Your task to perform on an android device: toggle priority inbox in the gmail app Image 0: 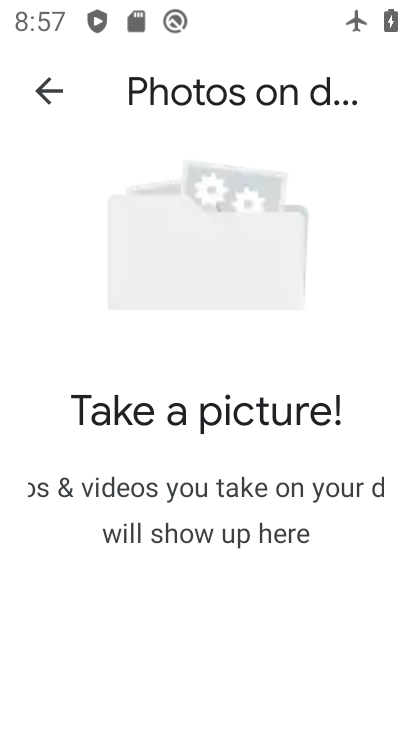
Step 0: press home button
Your task to perform on an android device: toggle priority inbox in the gmail app Image 1: 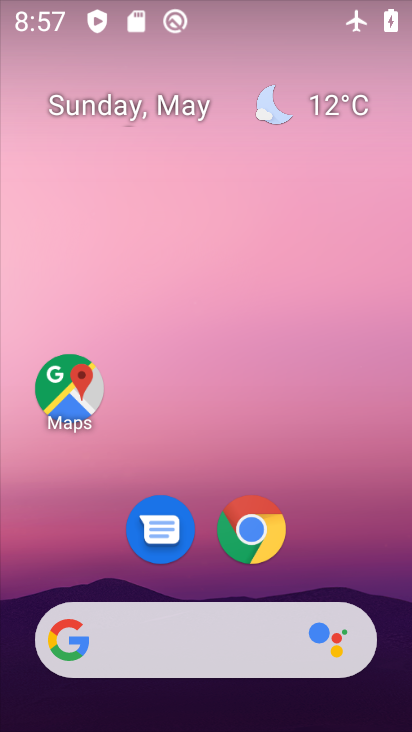
Step 1: drag from (321, 587) to (306, 19)
Your task to perform on an android device: toggle priority inbox in the gmail app Image 2: 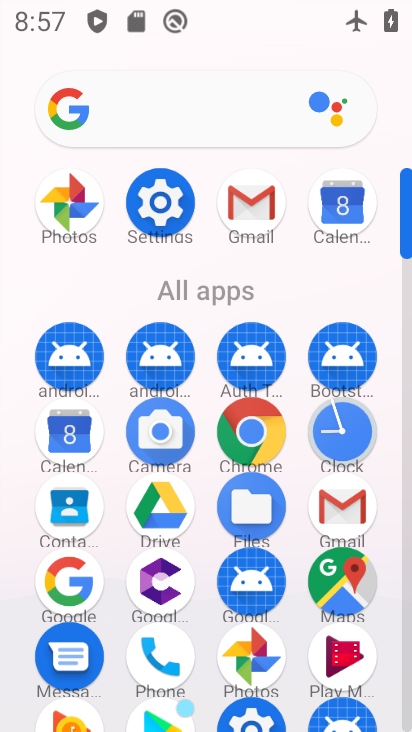
Step 2: click (351, 502)
Your task to perform on an android device: toggle priority inbox in the gmail app Image 3: 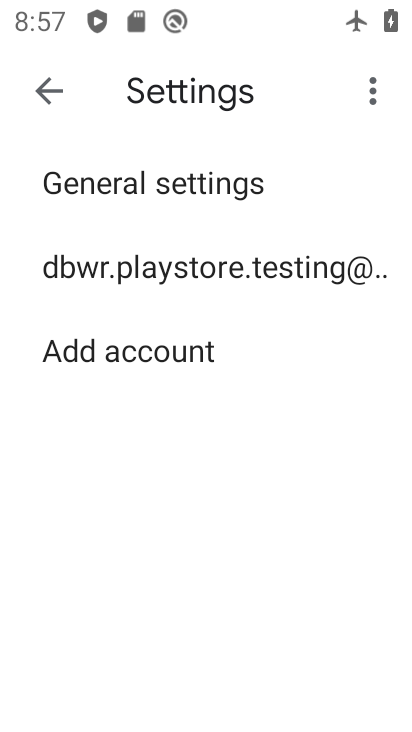
Step 3: click (164, 268)
Your task to perform on an android device: toggle priority inbox in the gmail app Image 4: 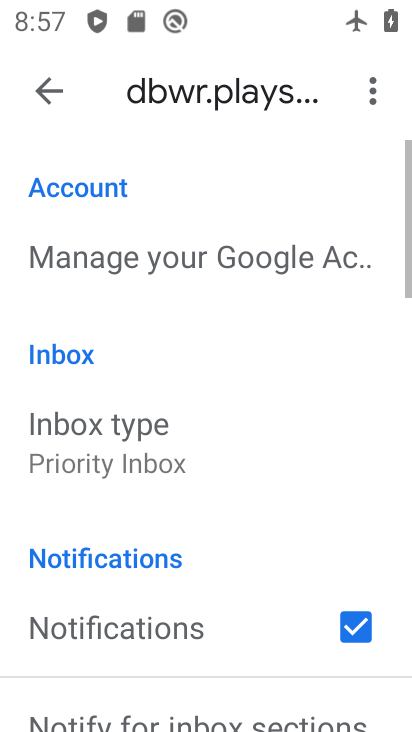
Step 4: click (120, 437)
Your task to perform on an android device: toggle priority inbox in the gmail app Image 5: 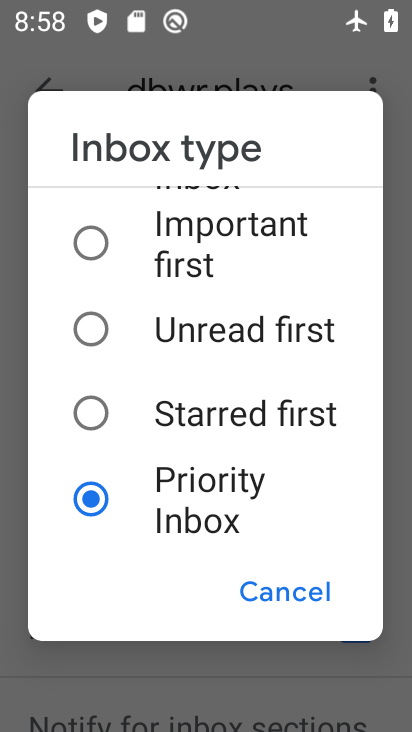
Step 5: drag from (248, 297) to (257, 417)
Your task to perform on an android device: toggle priority inbox in the gmail app Image 6: 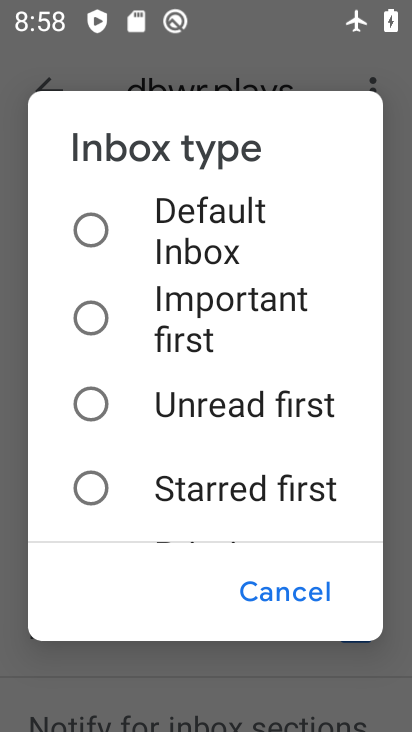
Step 6: click (198, 239)
Your task to perform on an android device: toggle priority inbox in the gmail app Image 7: 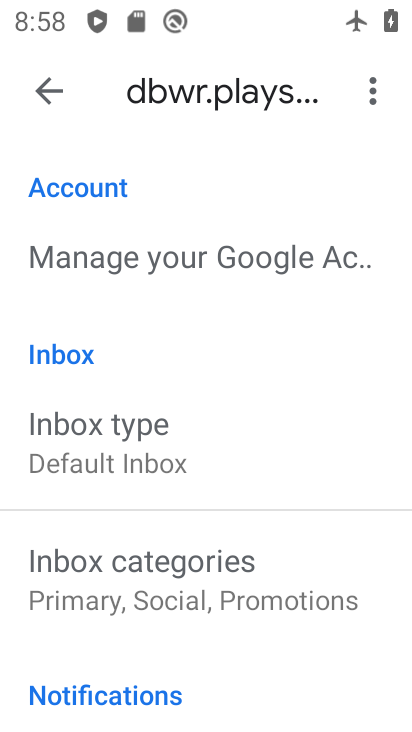
Step 7: task complete